Your task to perform on an android device: turn off wifi Image 0: 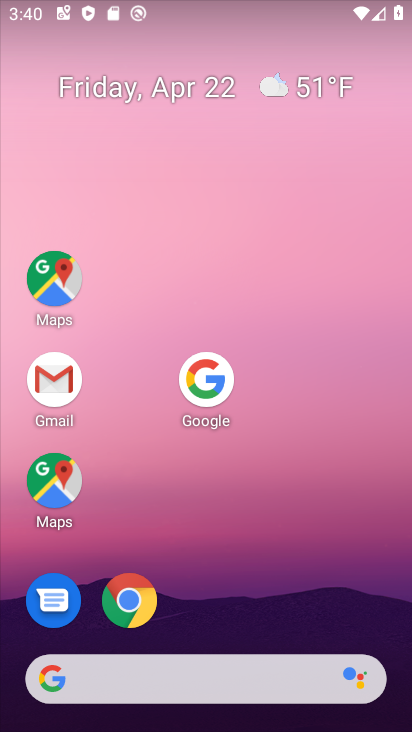
Step 0: drag from (250, 595) to (211, 37)
Your task to perform on an android device: turn off wifi Image 1: 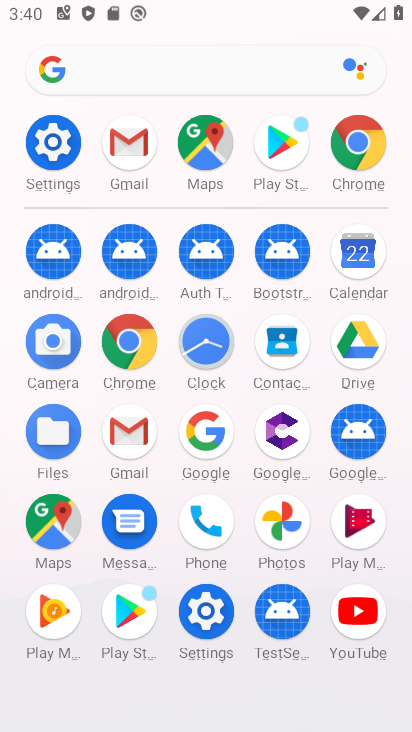
Step 1: click (46, 157)
Your task to perform on an android device: turn off wifi Image 2: 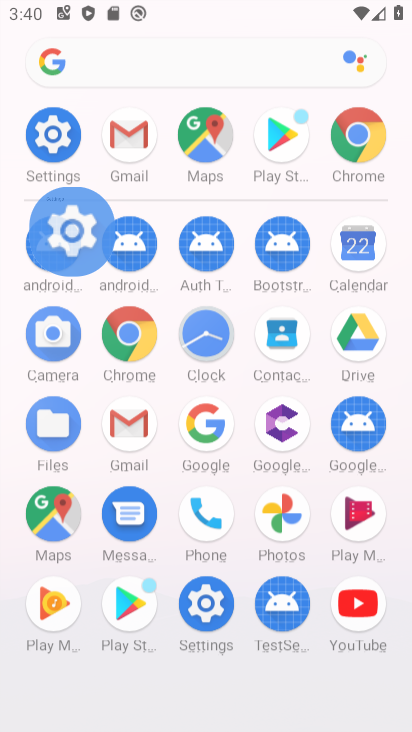
Step 2: click (14, 166)
Your task to perform on an android device: turn off wifi Image 3: 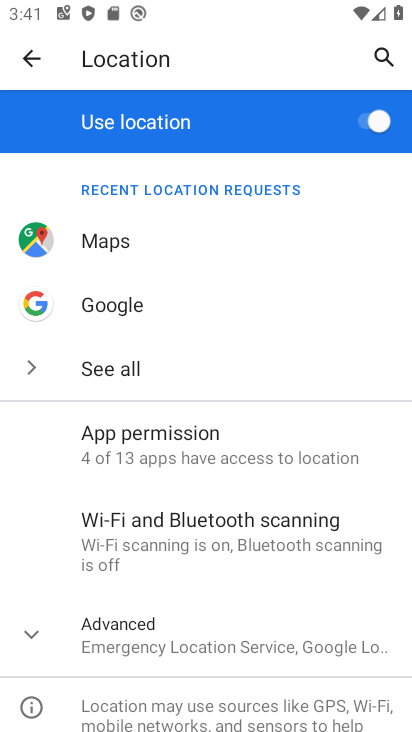
Step 3: click (21, 60)
Your task to perform on an android device: turn off wifi Image 4: 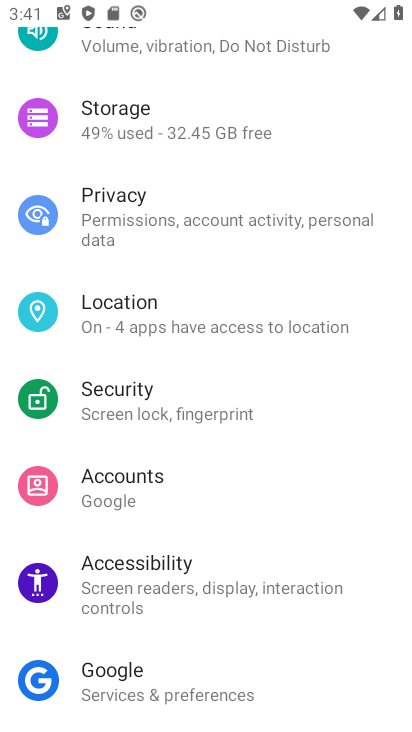
Step 4: drag from (193, 252) to (271, 526)
Your task to perform on an android device: turn off wifi Image 5: 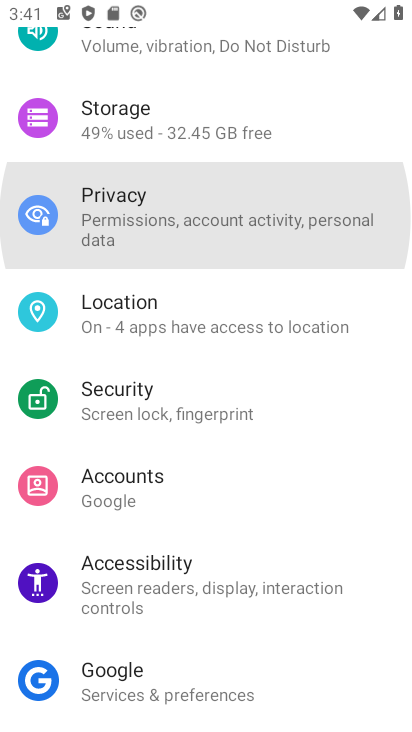
Step 5: drag from (200, 334) to (235, 619)
Your task to perform on an android device: turn off wifi Image 6: 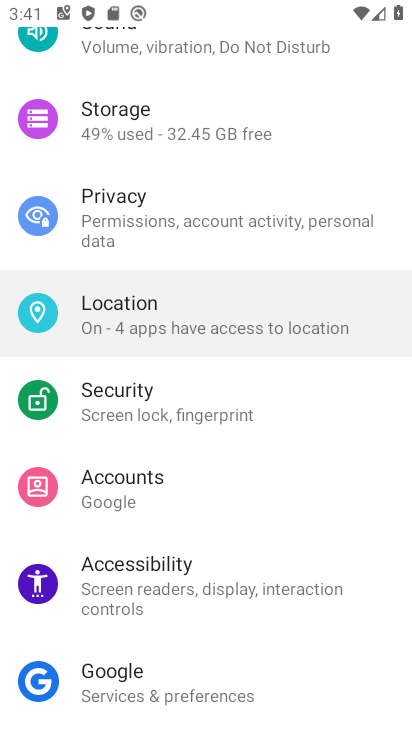
Step 6: drag from (188, 340) to (249, 723)
Your task to perform on an android device: turn off wifi Image 7: 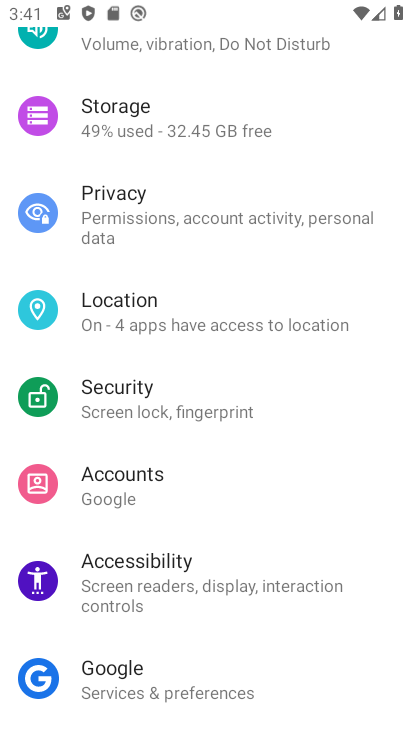
Step 7: drag from (158, 194) to (188, 641)
Your task to perform on an android device: turn off wifi Image 8: 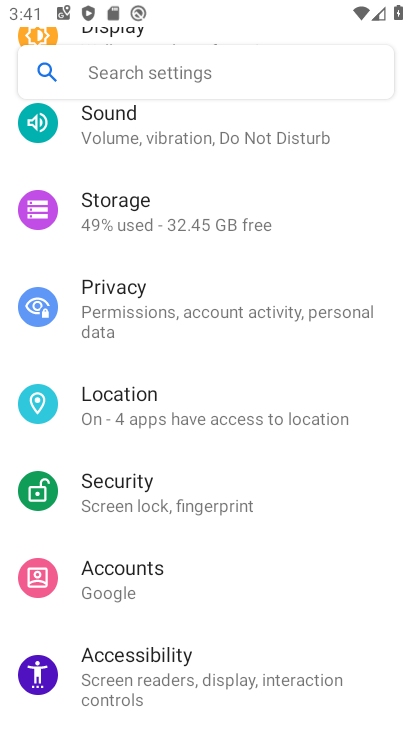
Step 8: drag from (177, 319) to (171, 673)
Your task to perform on an android device: turn off wifi Image 9: 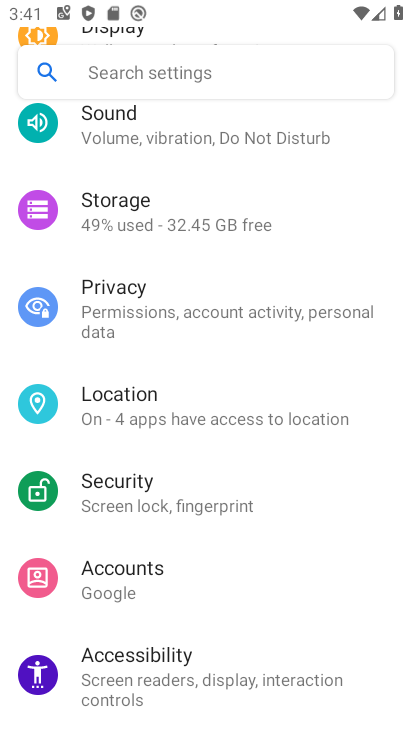
Step 9: drag from (266, 439) to (164, 660)
Your task to perform on an android device: turn off wifi Image 10: 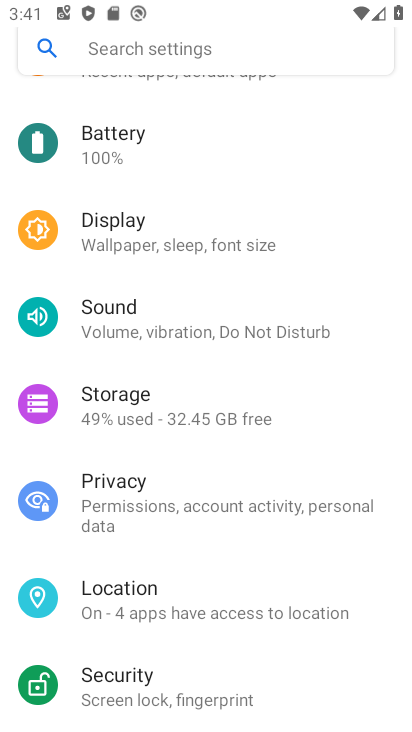
Step 10: drag from (226, 565) to (251, 614)
Your task to perform on an android device: turn off wifi Image 11: 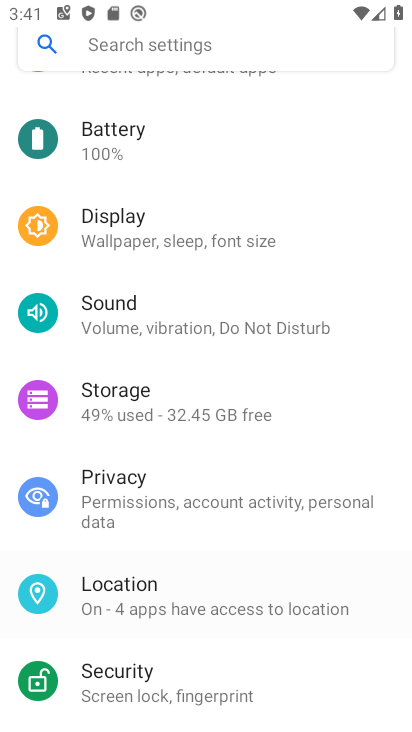
Step 11: drag from (229, 279) to (290, 609)
Your task to perform on an android device: turn off wifi Image 12: 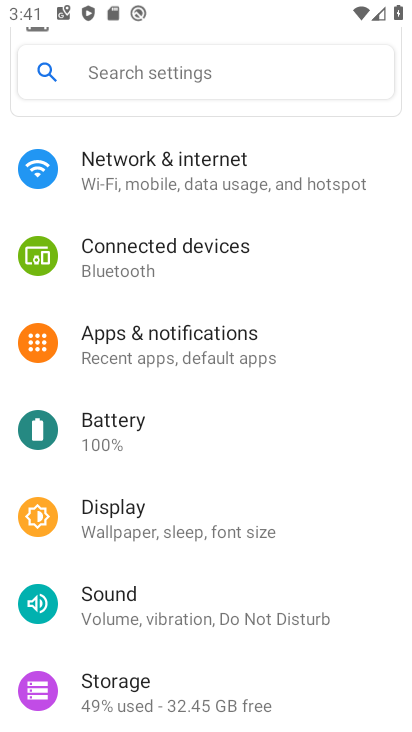
Step 12: click (173, 175)
Your task to perform on an android device: turn off wifi Image 13: 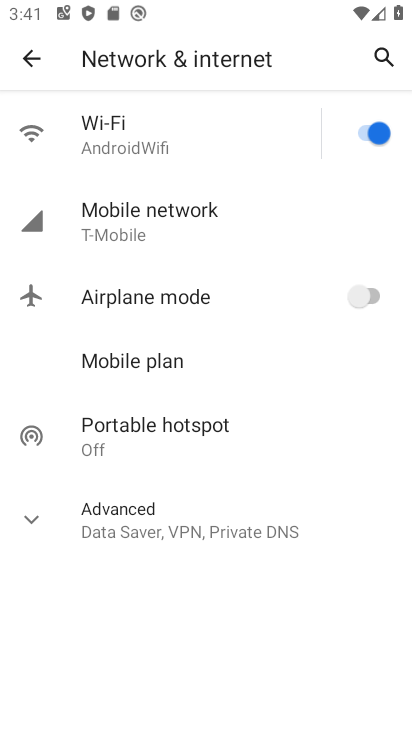
Step 13: click (370, 127)
Your task to perform on an android device: turn off wifi Image 14: 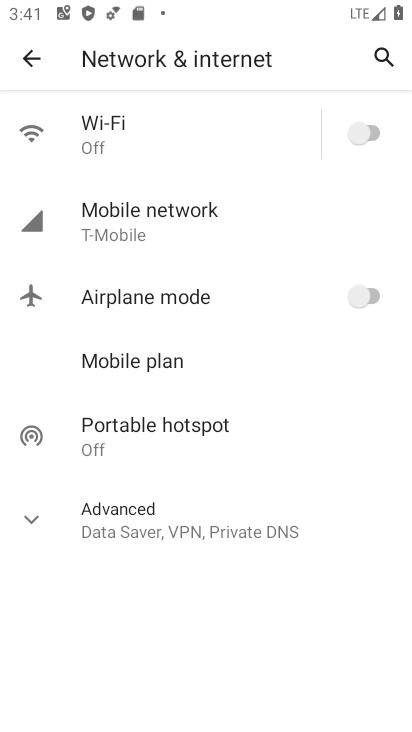
Step 14: task complete